Your task to perform on an android device: What's the weather today? Image 0: 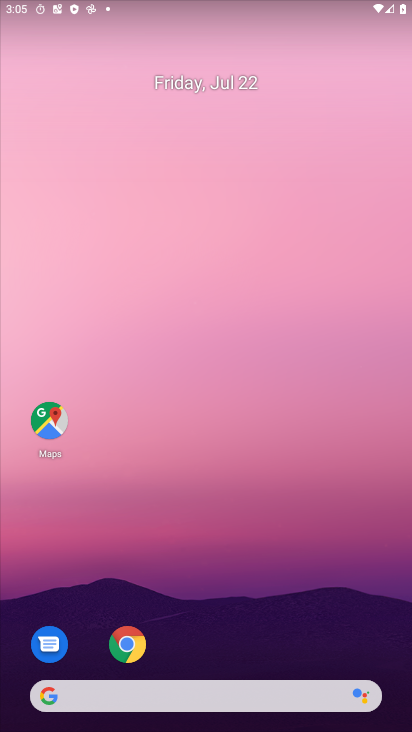
Step 0: drag from (205, 670) to (403, 80)
Your task to perform on an android device: What's the weather today? Image 1: 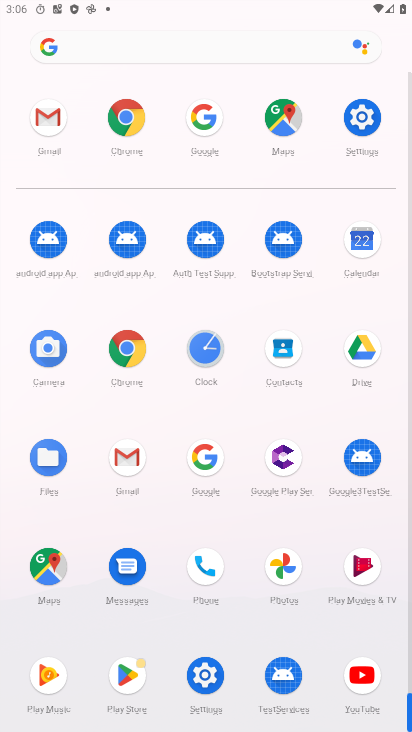
Step 1: click (204, 459)
Your task to perform on an android device: What's the weather today? Image 2: 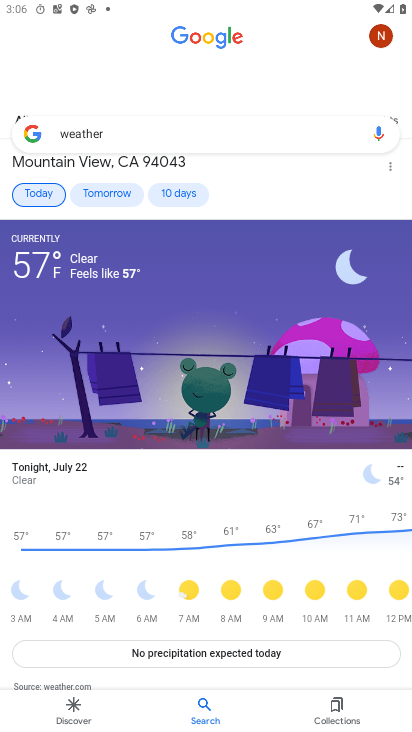
Step 2: task complete